Your task to perform on an android device: Add "jbl charge 4" to the cart on ebay.com Image 0: 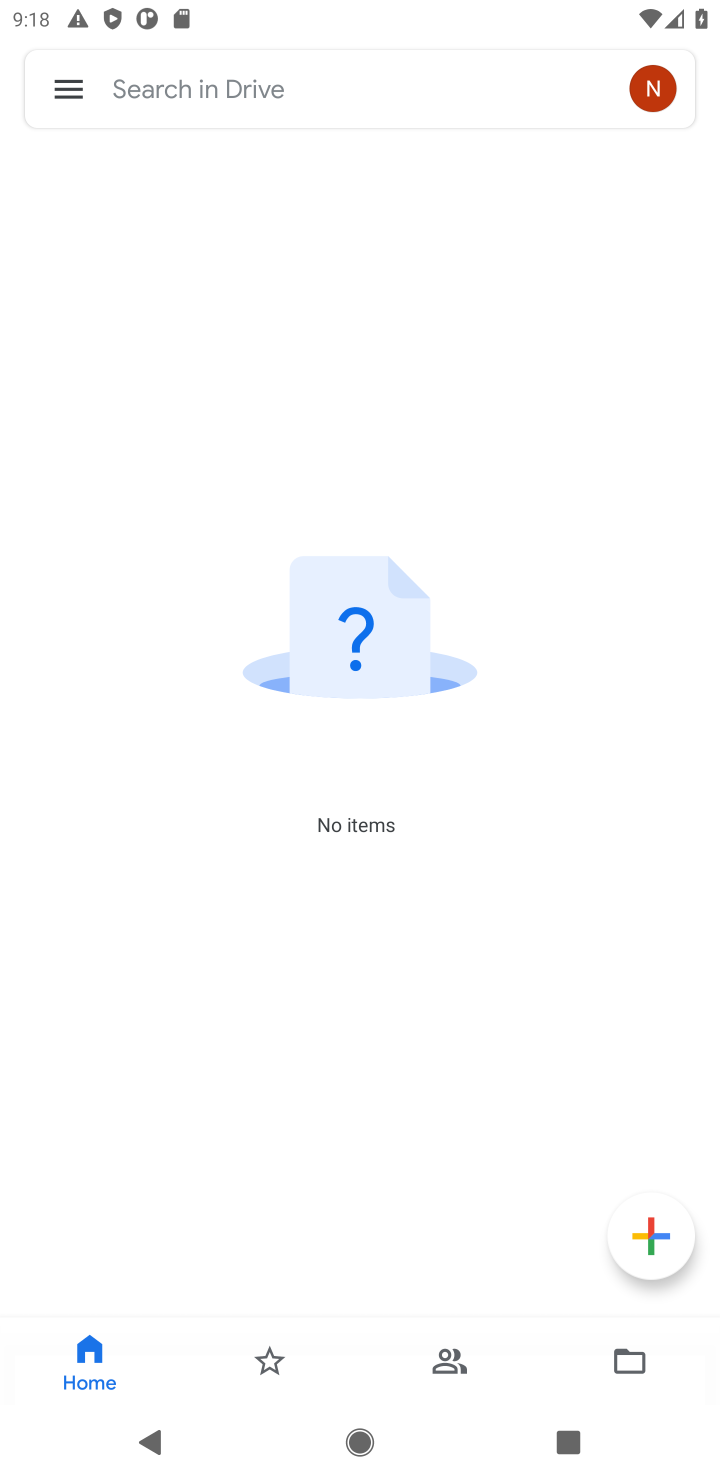
Step 0: type "jbl charge 4"
Your task to perform on an android device: Add "jbl charge 4" to the cart on ebay.com Image 1: 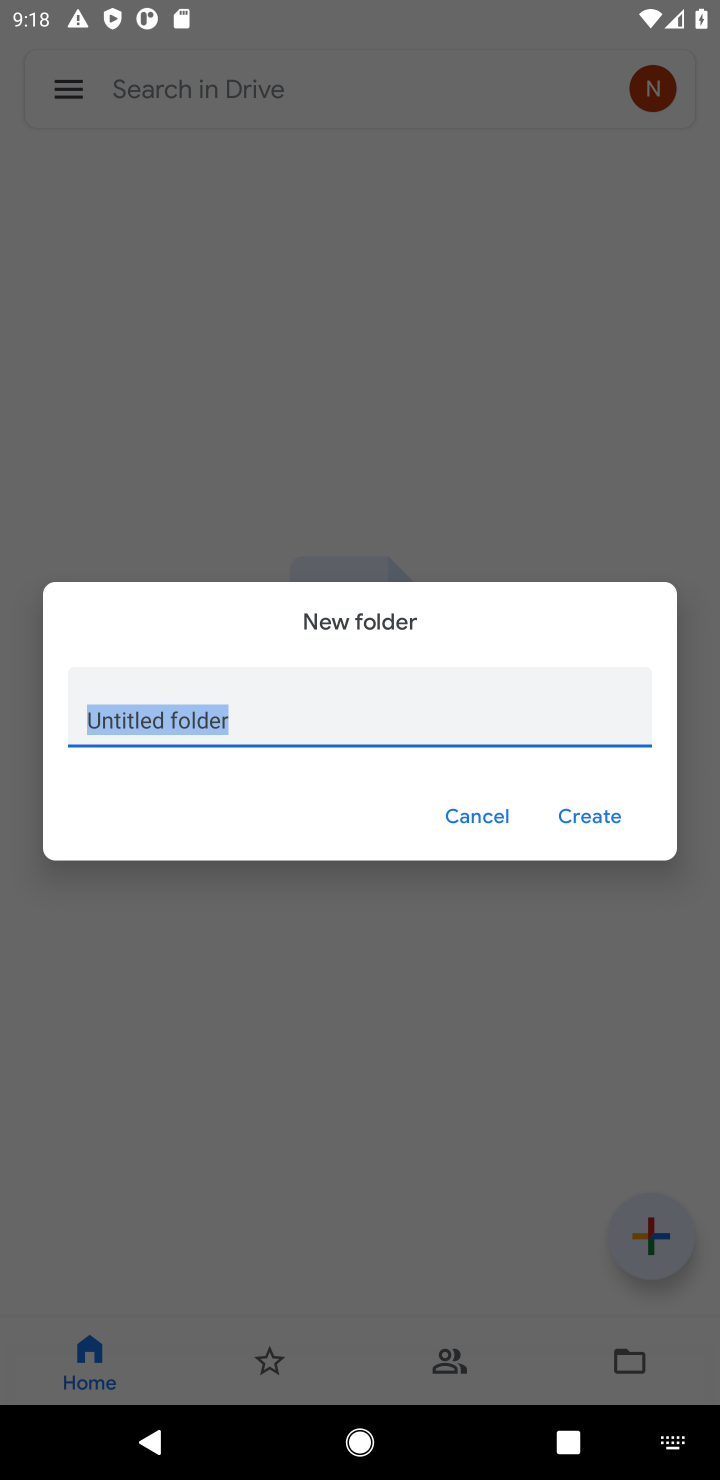
Step 1: click (505, 835)
Your task to perform on an android device: Add "jbl charge 4" to the cart on ebay.com Image 2: 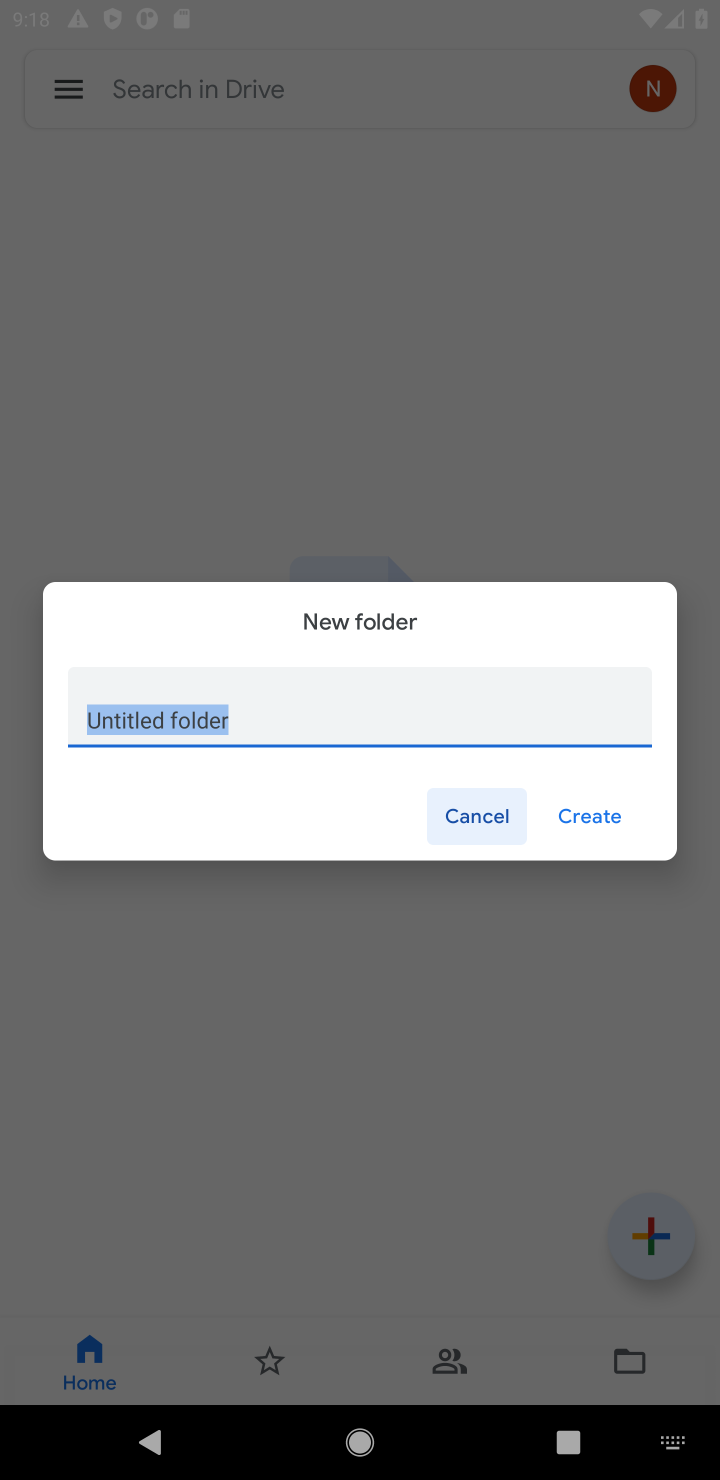
Step 2: press home button
Your task to perform on an android device: Add "jbl charge 4" to the cart on ebay.com Image 3: 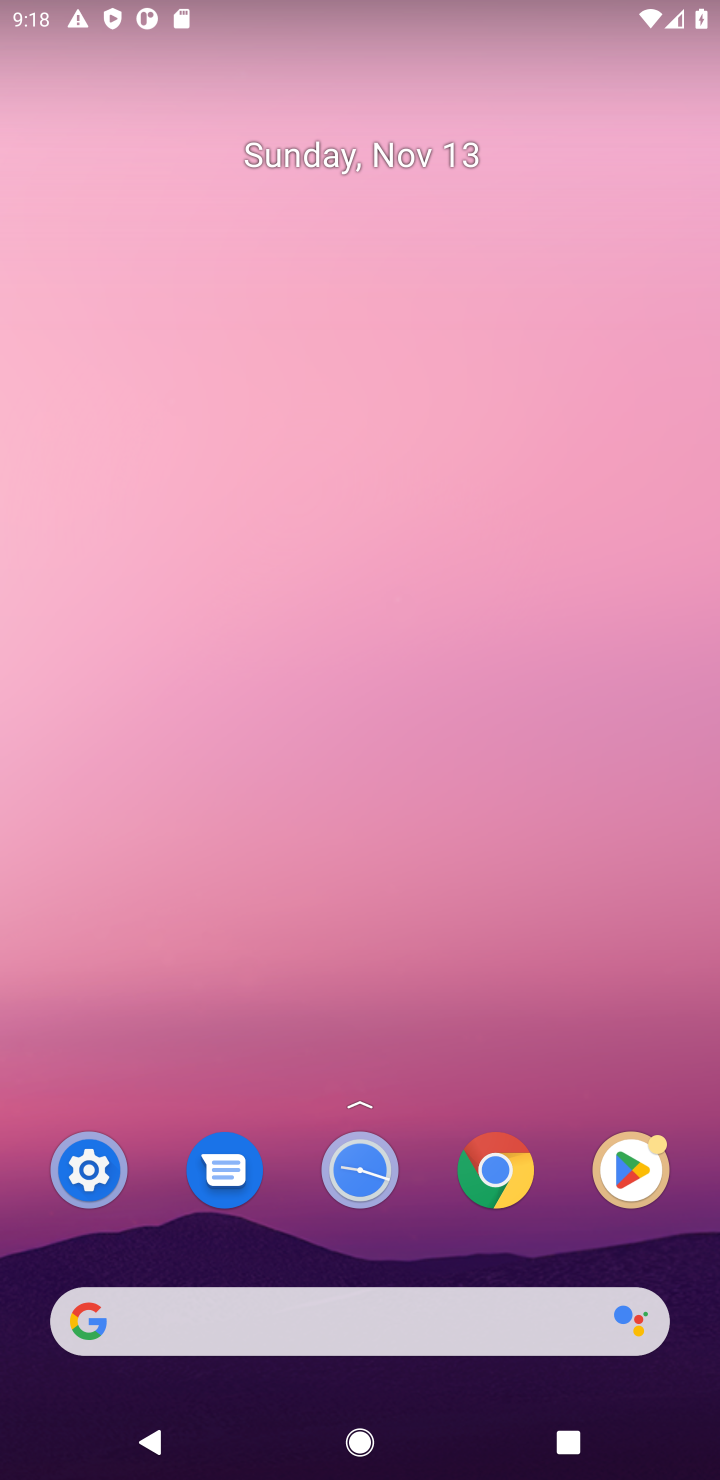
Step 3: click (342, 1306)
Your task to perform on an android device: Add "jbl charge 4" to the cart on ebay.com Image 4: 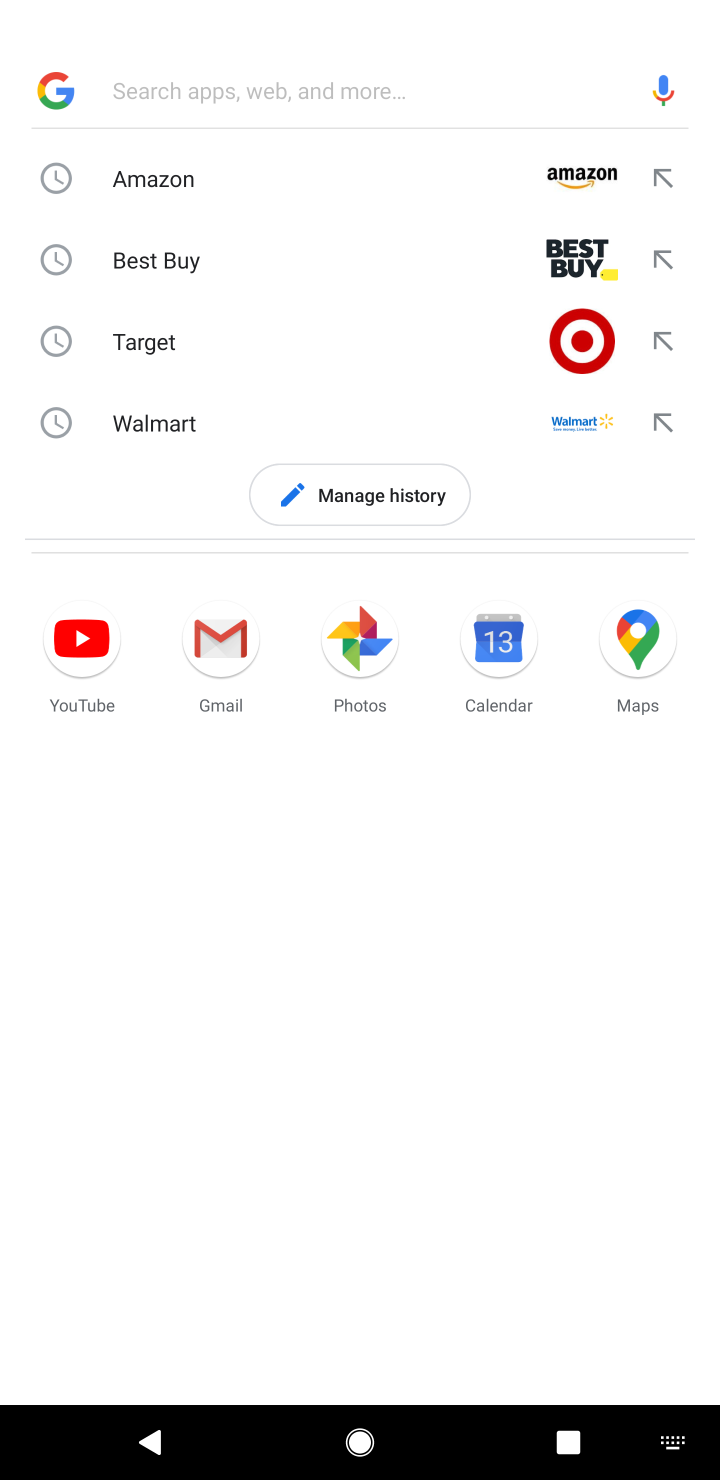
Step 4: type "jbl charge 4"
Your task to perform on an android device: Add "jbl charge 4" to the cart on ebay.com Image 5: 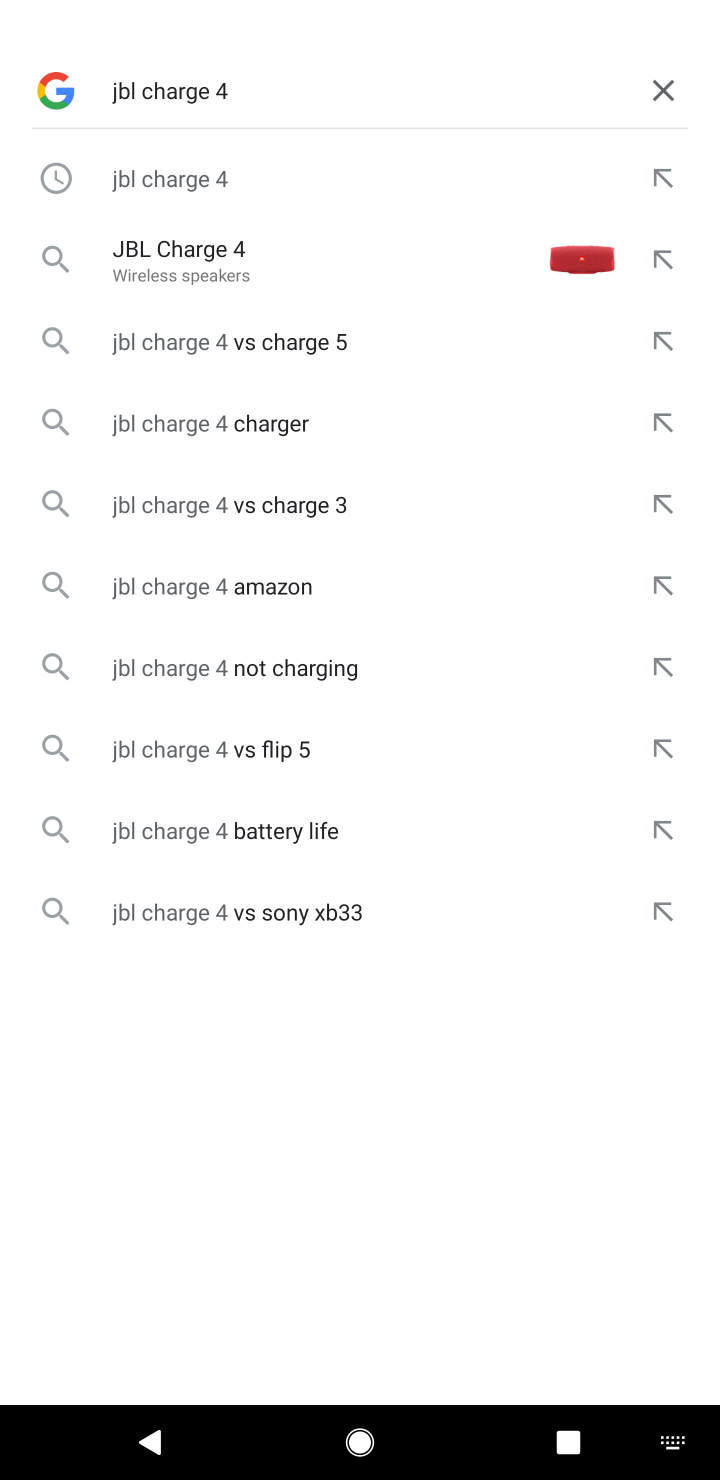
Step 5: click (331, 276)
Your task to perform on an android device: Add "jbl charge 4" to the cart on ebay.com Image 6: 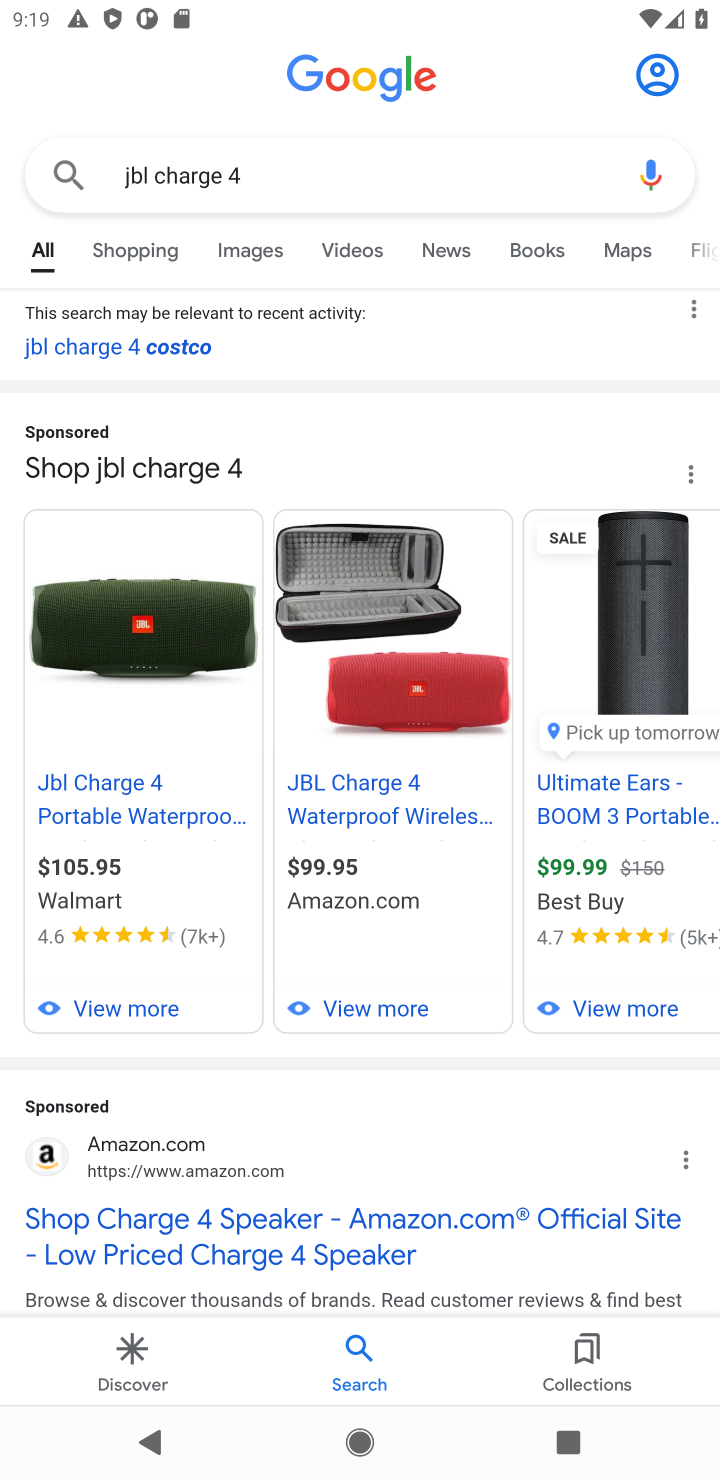
Step 6: click (240, 1272)
Your task to perform on an android device: Add "jbl charge 4" to the cart on ebay.com Image 7: 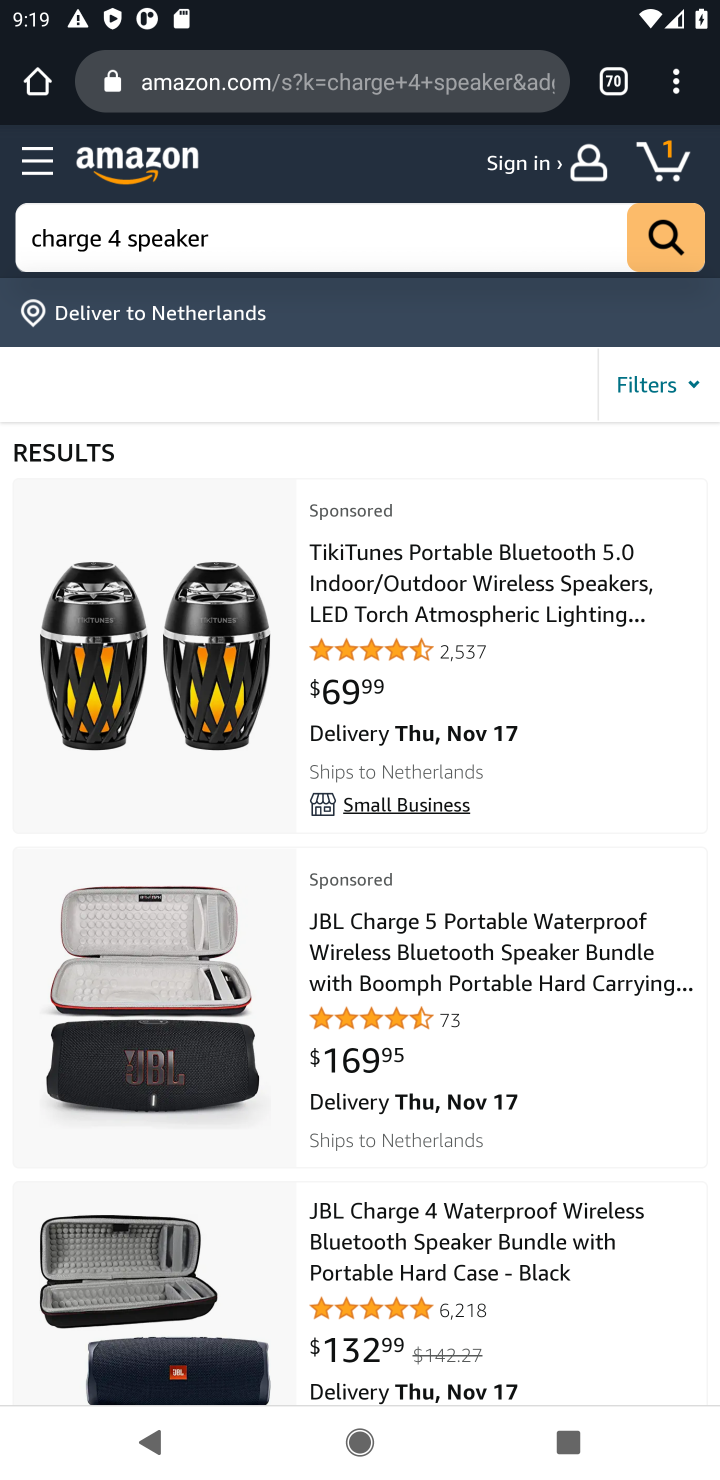
Step 7: task complete